Your task to perform on an android device: Go to eBay Image 0: 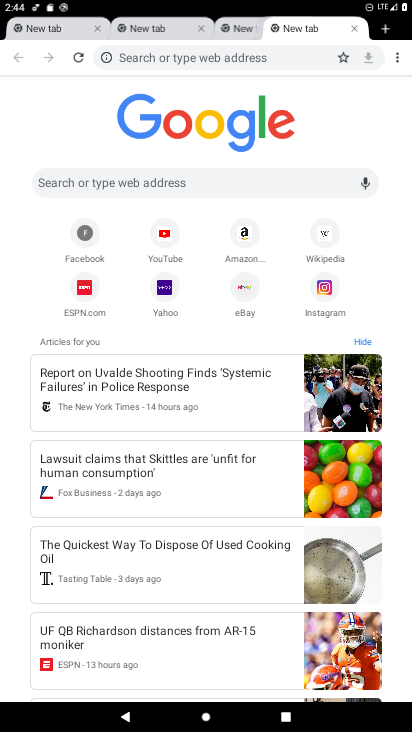
Step 0: click (246, 291)
Your task to perform on an android device: Go to eBay Image 1: 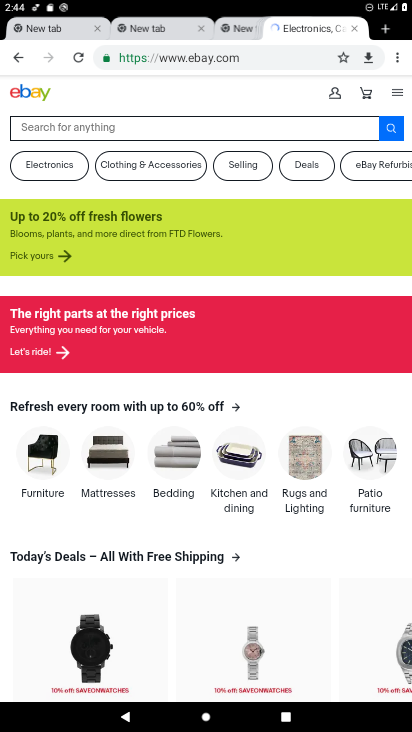
Step 1: task complete